Your task to perform on an android device: toggle sleep mode Image 0: 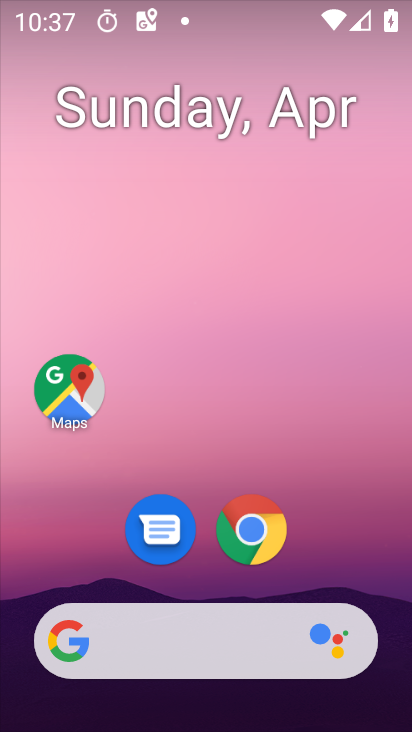
Step 0: drag from (191, 525) to (222, 134)
Your task to perform on an android device: toggle sleep mode Image 1: 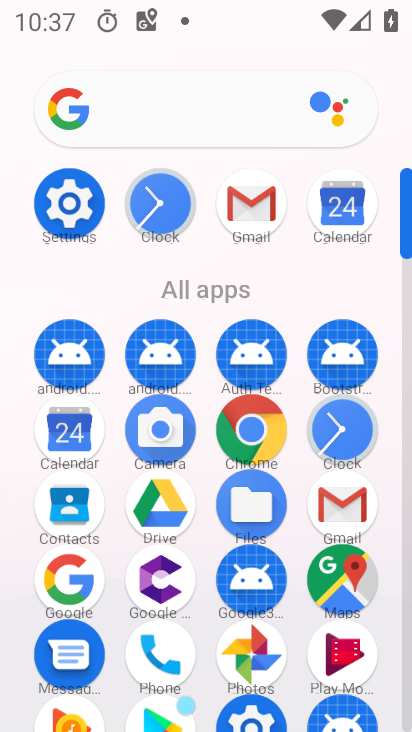
Step 1: click (82, 229)
Your task to perform on an android device: toggle sleep mode Image 2: 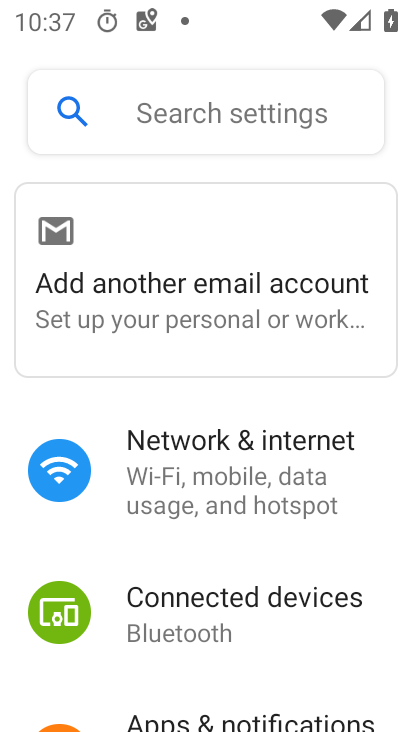
Step 2: drag from (223, 593) to (230, 244)
Your task to perform on an android device: toggle sleep mode Image 3: 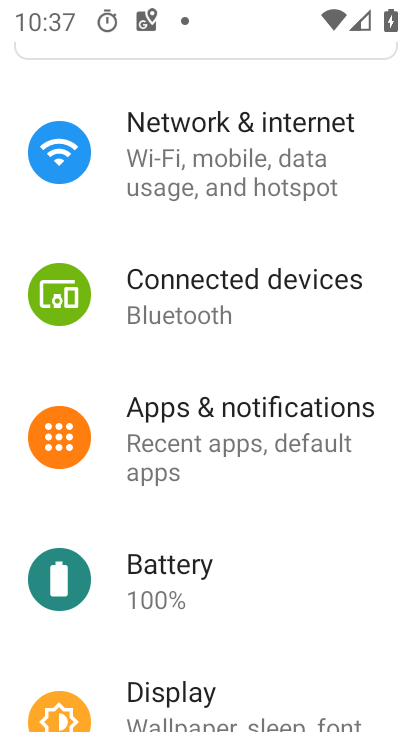
Step 3: click (241, 705)
Your task to perform on an android device: toggle sleep mode Image 4: 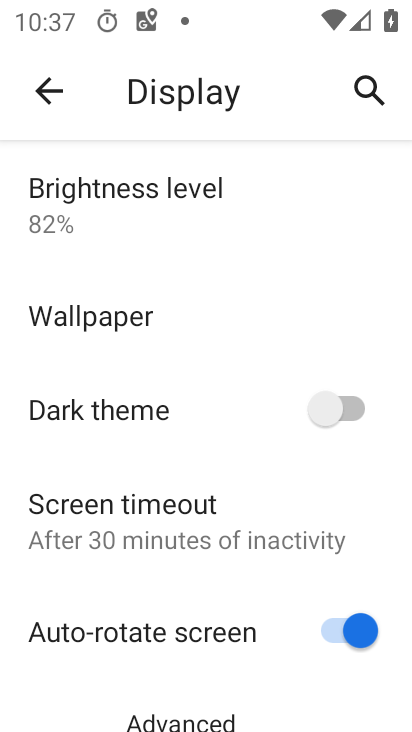
Step 4: click (139, 523)
Your task to perform on an android device: toggle sleep mode Image 5: 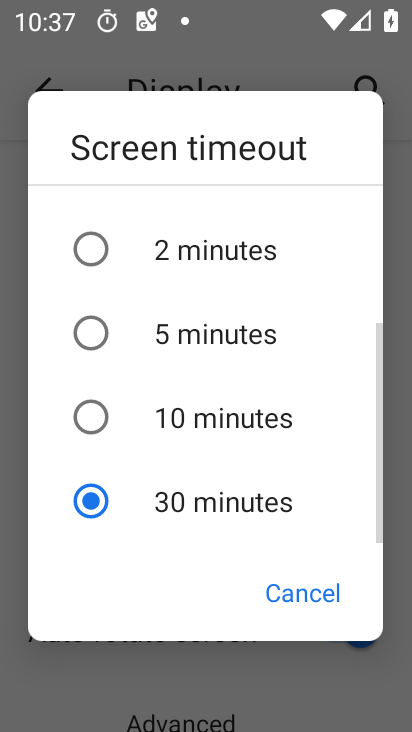
Step 5: click (109, 246)
Your task to perform on an android device: toggle sleep mode Image 6: 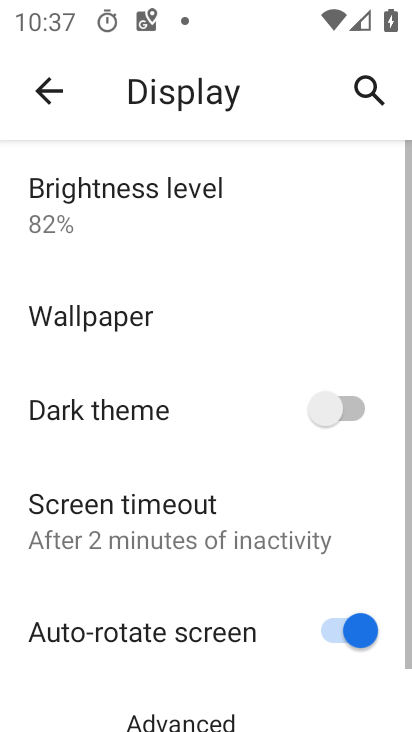
Step 6: task complete